Your task to perform on an android device: Open Chrome and go to settings Image 0: 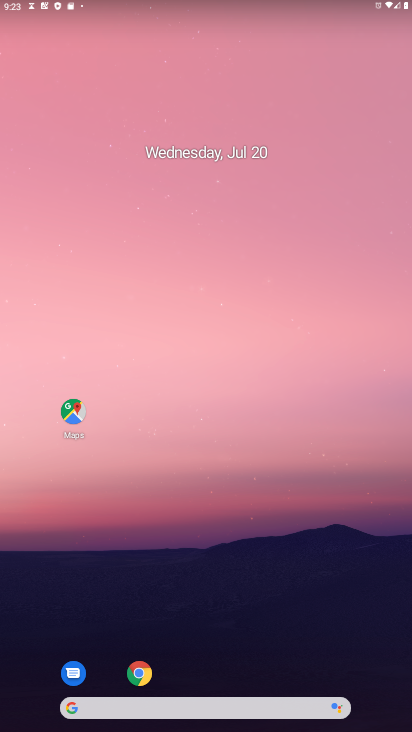
Step 0: click (141, 675)
Your task to perform on an android device: Open Chrome and go to settings Image 1: 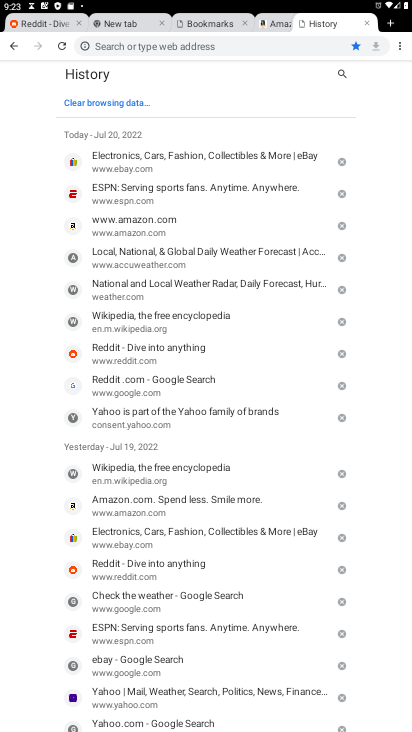
Step 1: click (398, 49)
Your task to perform on an android device: Open Chrome and go to settings Image 2: 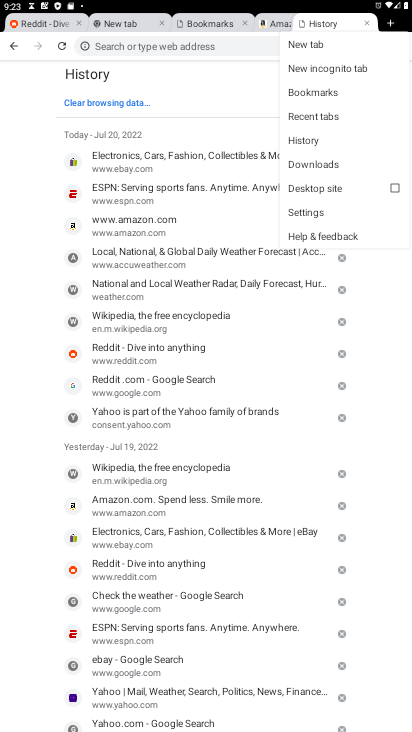
Step 2: click (306, 210)
Your task to perform on an android device: Open Chrome and go to settings Image 3: 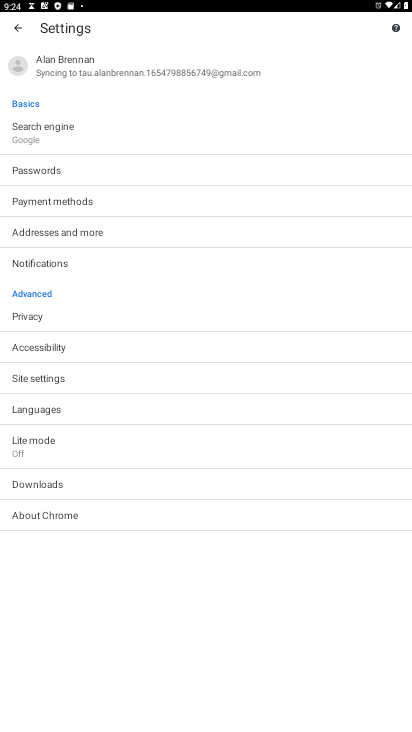
Step 3: task complete